Your task to perform on an android device: add a contact in the contacts app Image 0: 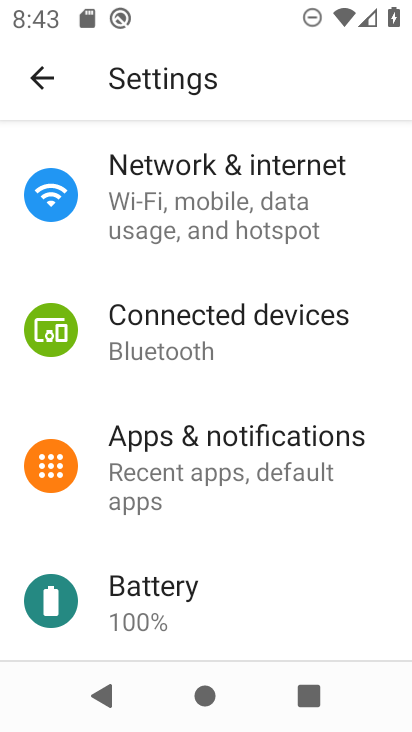
Step 0: press back button
Your task to perform on an android device: add a contact in the contacts app Image 1: 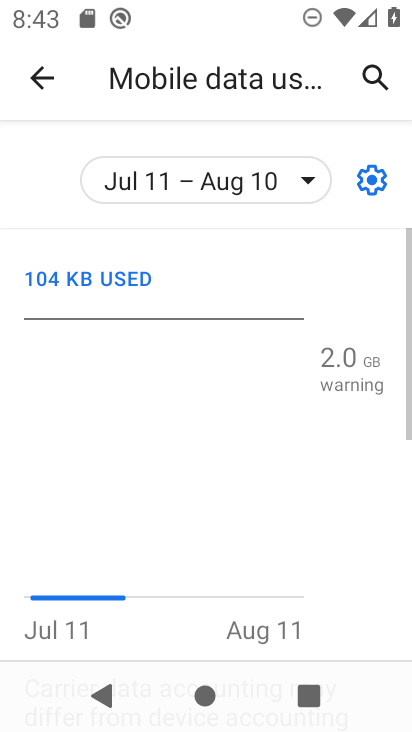
Step 1: press back button
Your task to perform on an android device: add a contact in the contacts app Image 2: 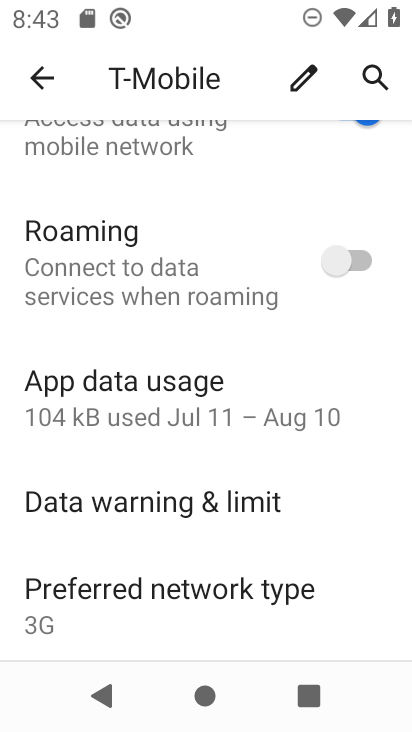
Step 2: press back button
Your task to perform on an android device: add a contact in the contacts app Image 3: 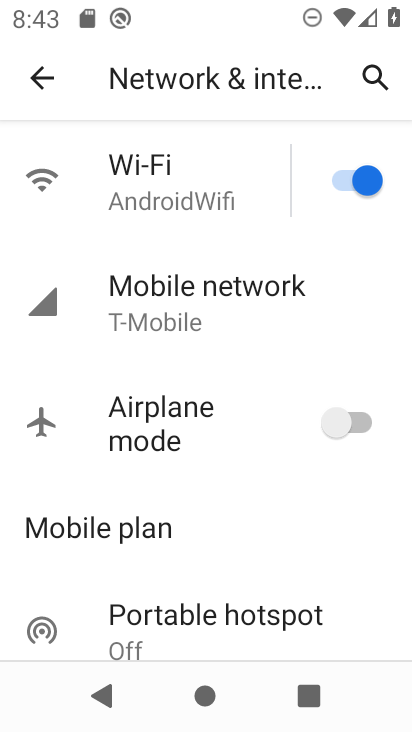
Step 3: press back button
Your task to perform on an android device: add a contact in the contacts app Image 4: 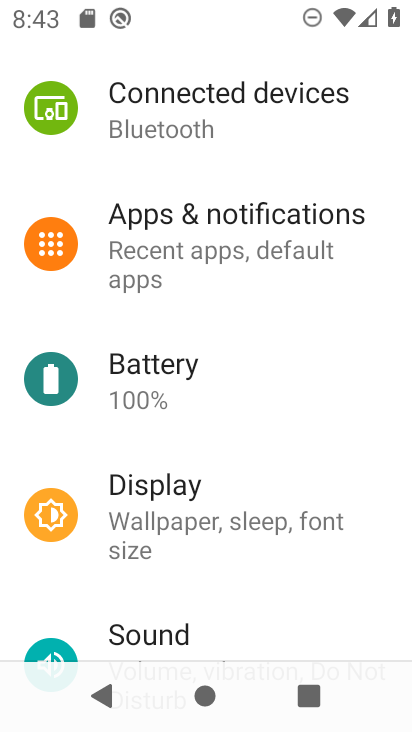
Step 4: press back button
Your task to perform on an android device: add a contact in the contacts app Image 5: 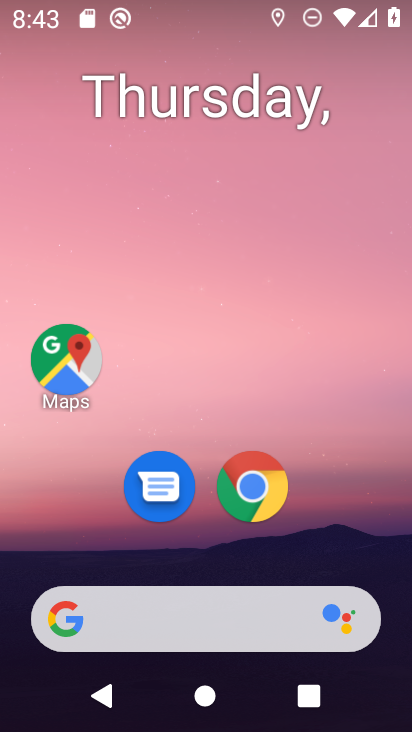
Step 5: drag from (192, 576) to (225, 16)
Your task to perform on an android device: add a contact in the contacts app Image 6: 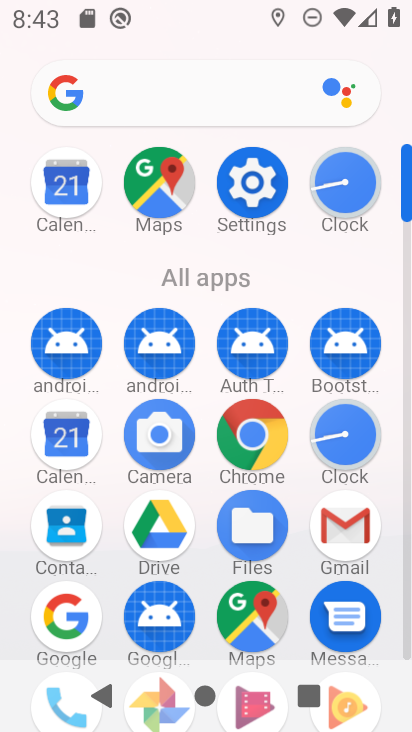
Step 6: click (56, 534)
Your task to perform on an android device: add a contact in the contacts app Image 7: 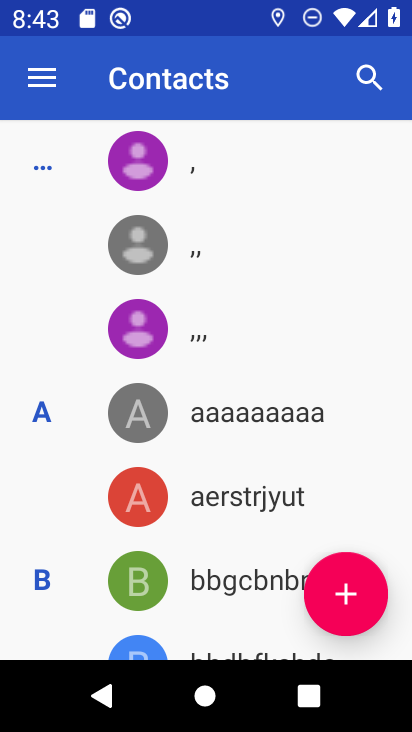
Step 7: click (331, 589)
Your task to perform on an android device: add a contact in the contacts app Image 8: 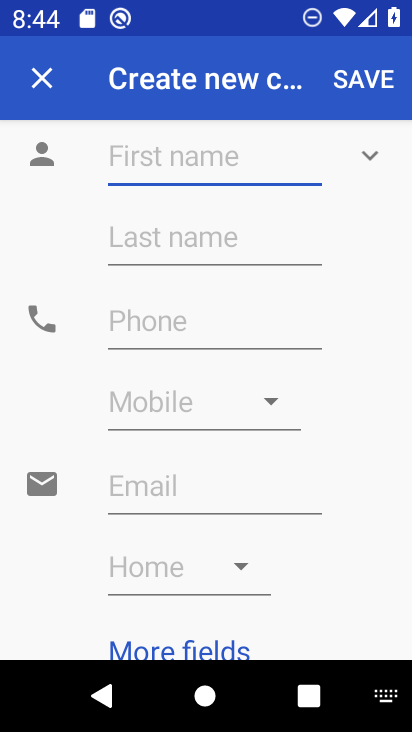
Step 8: click (172, 153)
Your task to perform on an android device: add a contact in the contacts app Image 9: 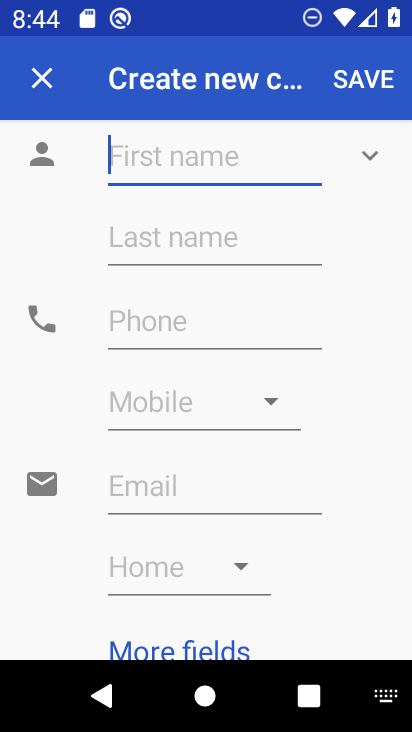
Step 9: type "vhvhv"
Your task to perform on an android device: add a contact in the contacts app Image 10: 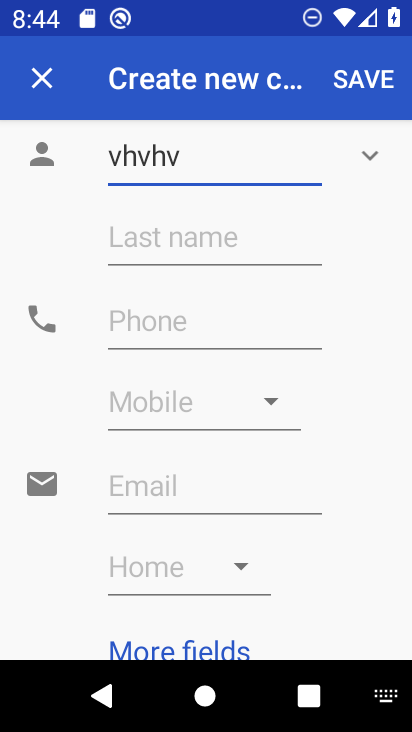
Step 10: click (150, 323)
Your task to perform on an android device: add a contact in the contacts app Image 11: 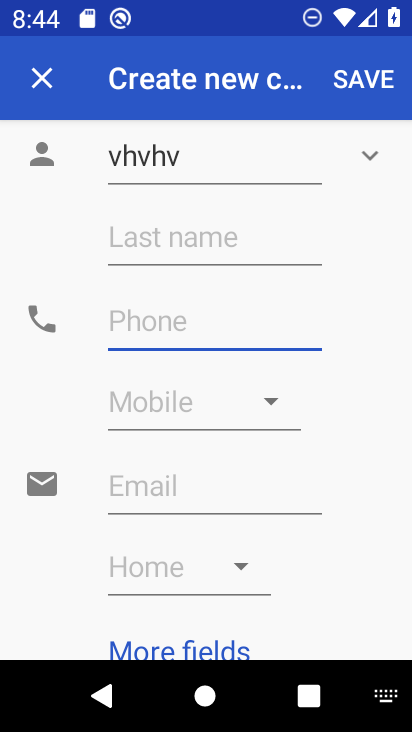
Step 11: type "86868"
Your task to perform on an android device: add a contact in the contacts app Image 12: 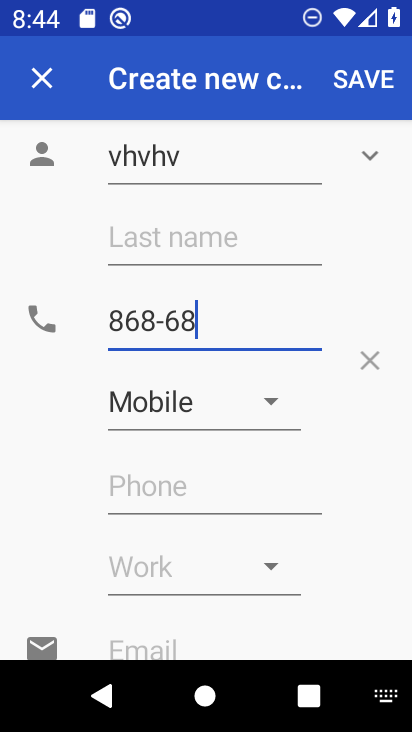
Step 12: click (342, 79)
Your task to perform on an android device: add a contact in the contacts app Image 13: 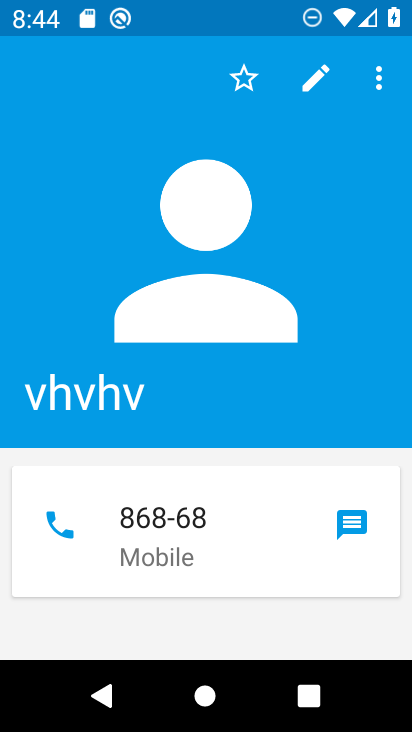
Step 13: task complete